Your task to perform on an android device: Do I have any events tomorrow? Image 0: 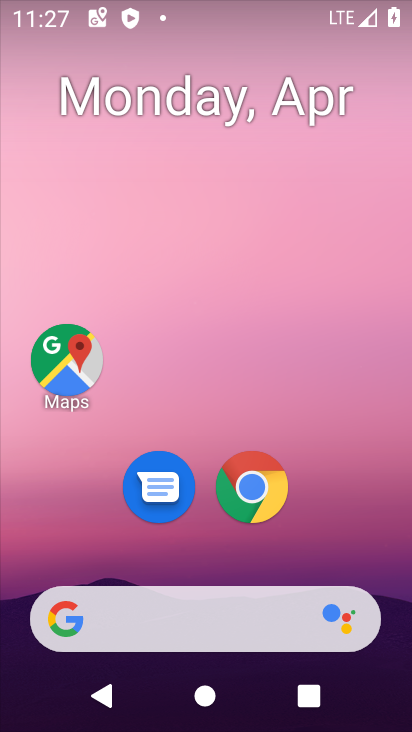
Step 0: drag from (386, 549) to (351, 212)
Your task to perform on an android device: Do I have any events tomorrow? Image 1: 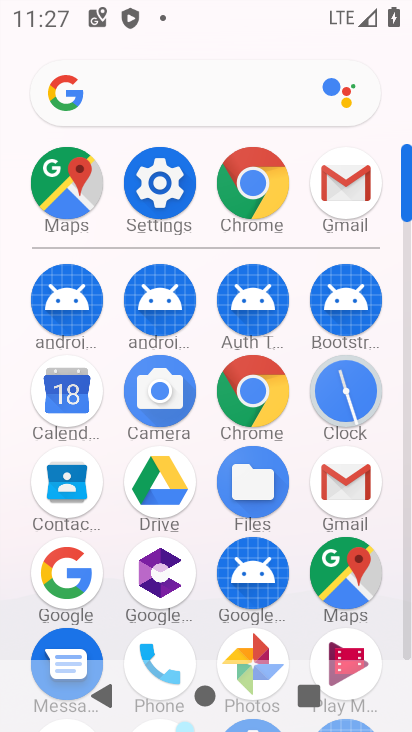
Step 1: click (74, 395)
Your task to perform on an android device: Do I have any events tomorrow? Image 2: 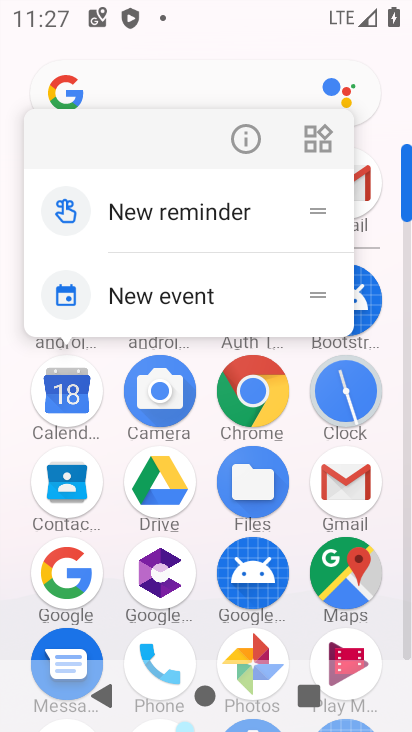
Step 2: click (74, 395)
Your task to perform on an android device: Do I have any events tomorrow? Image 3: 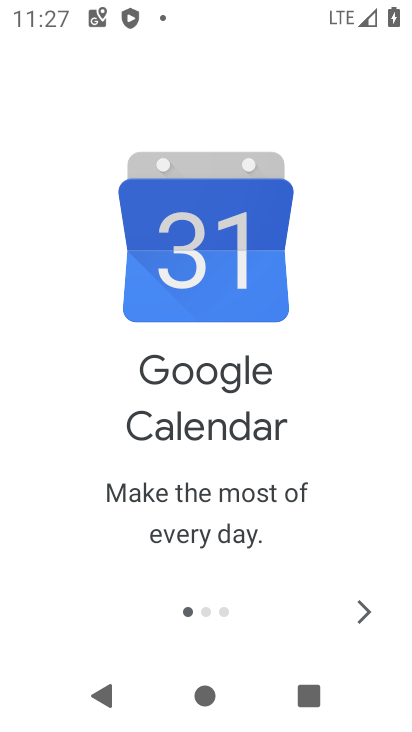
Step 3: click (355, 610)
Your task to perform on an android device: Do I have any events tomorrow? Image 4: 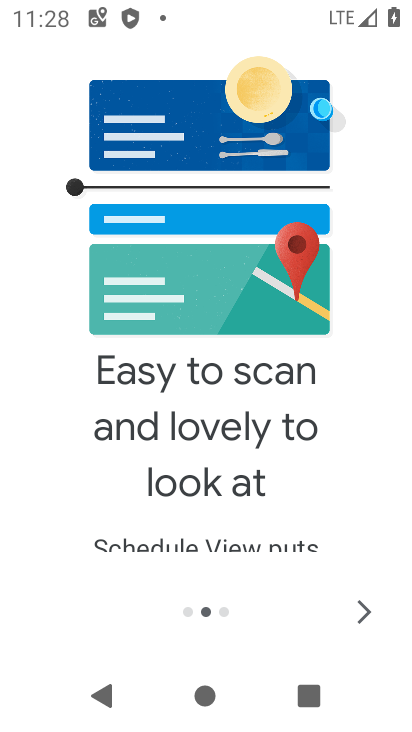
Step 4: click (355, 610)
Your task to perform on an android device: Do I have any events tomorrow? Image 5: 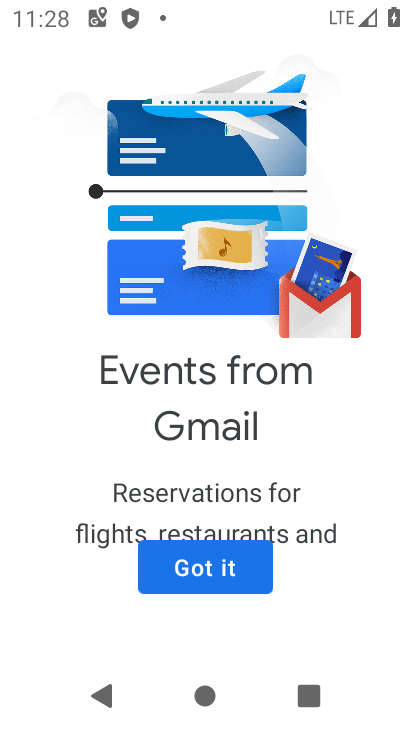
Step 5: click (222, 567)
Your task to perform on an android device: Do I have any events tomorrow? Image 6: 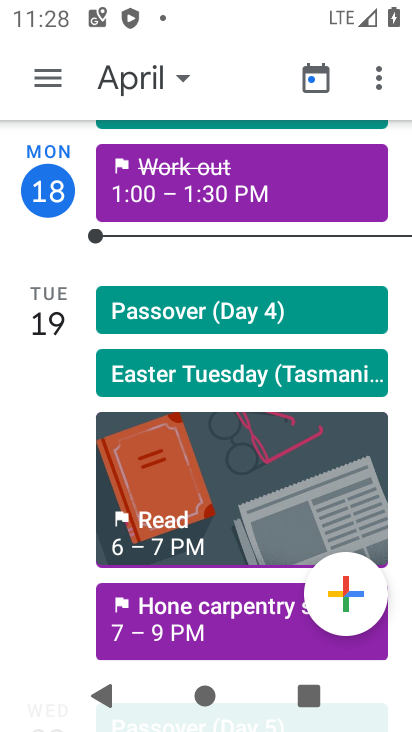
Step 6: click (158, 83)
Your task to perform on an android device: Do I have any events tomorrow? Image 7: 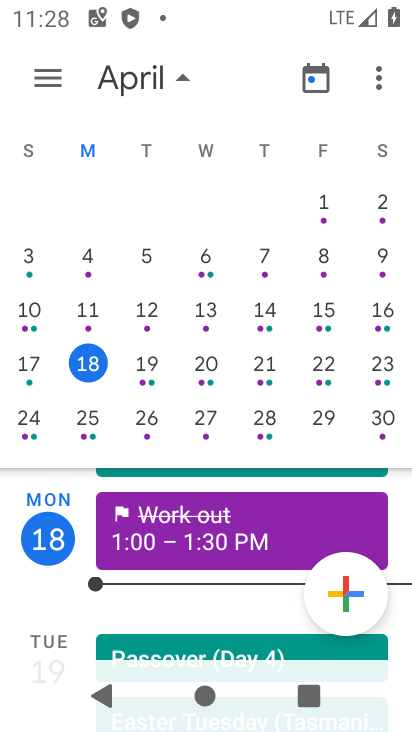
Step 7: click (198, 363)
Your task to perform on an android device: Do I have any events tomorrow? Image 8: 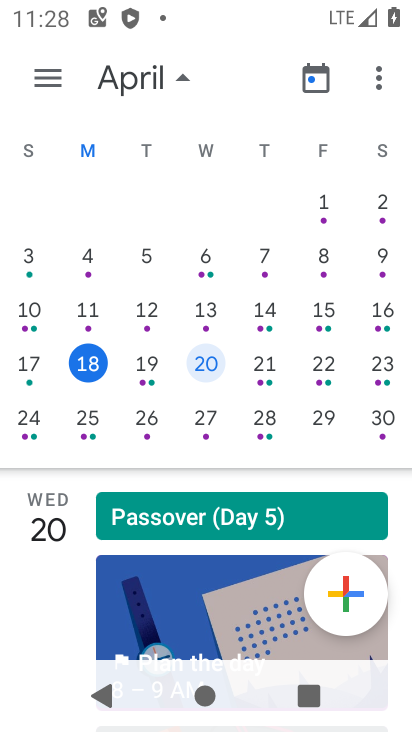
Step 8: click (165, 96)
Your task to perform on an android device: Do I have any events tomorrow? Image 9: 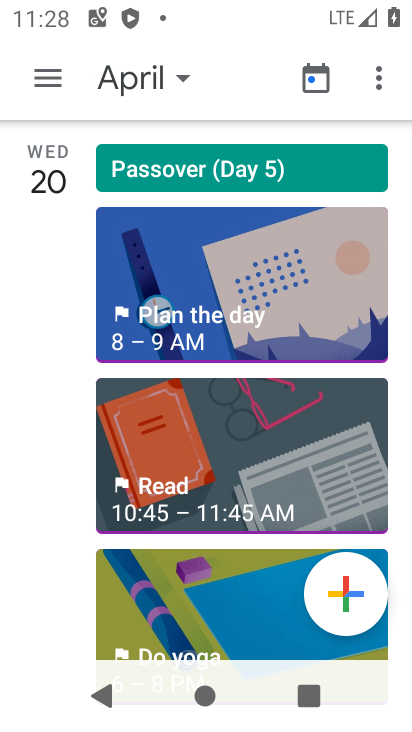
Step 9: task complete